Your task to perform on an android device: Check the weather Image 0: 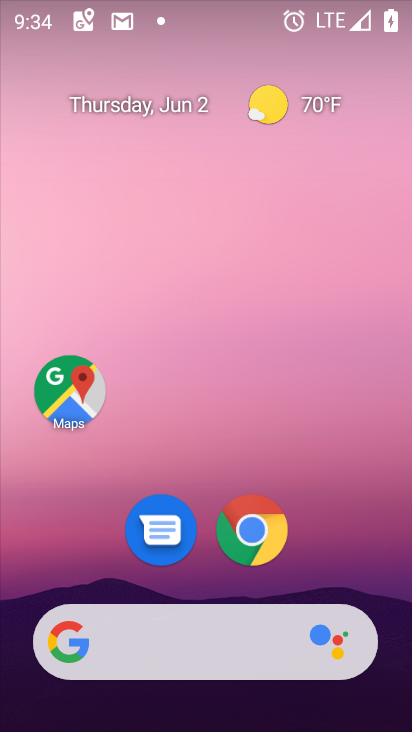
Step 0: drag from (166, 607) to (128, 351)
Your task to perform on an android device: Check the weather Image 1: 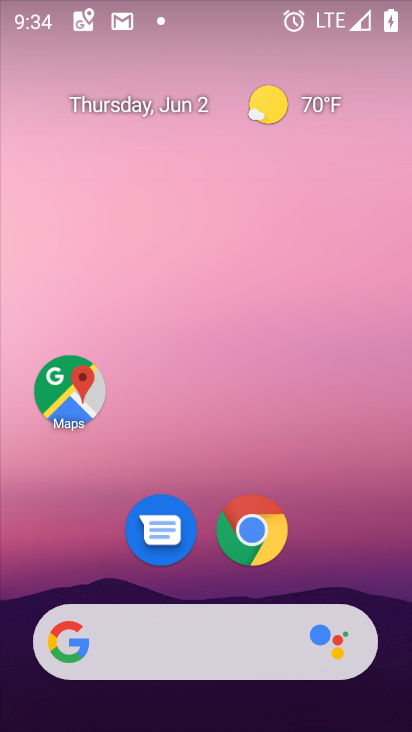
Step 1: drag from (173, 563) to (173, 281)
Your task to perform on an android device: Check the weather Image 2: 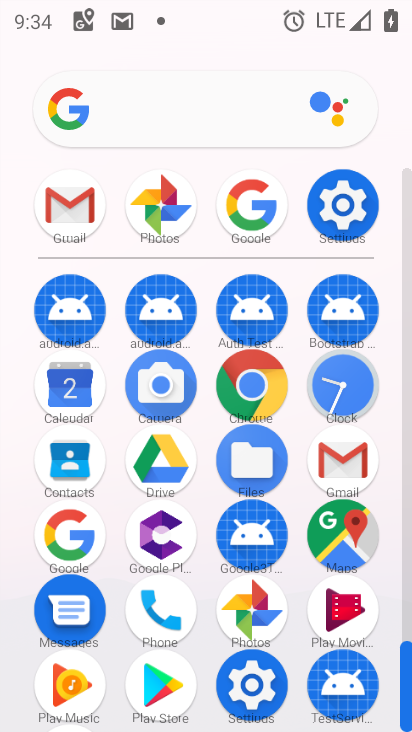
Step 2: click (69, 531)
Your task to perform on an android device: Check the weather Image 3: 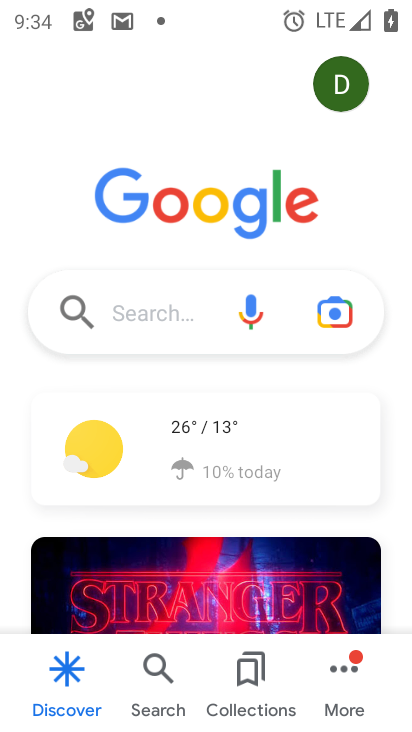
Step 3: click (247, 445)
Your task to perform on an android device: Check the weather Image 4: 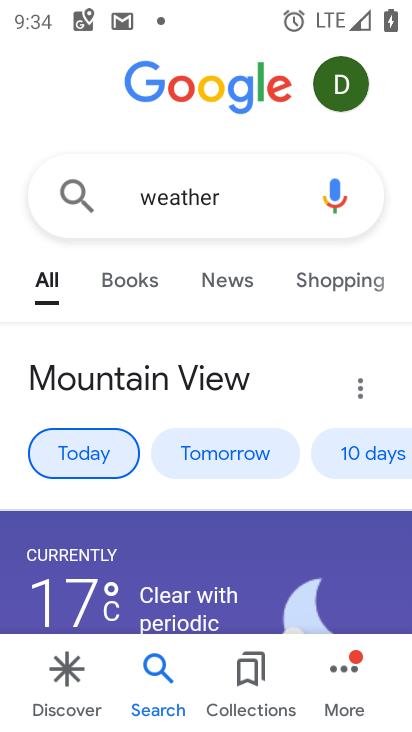
Step 4: task complete